Your task to perform on an android device: Search for vegetarian restaurants on Maps Image 0: 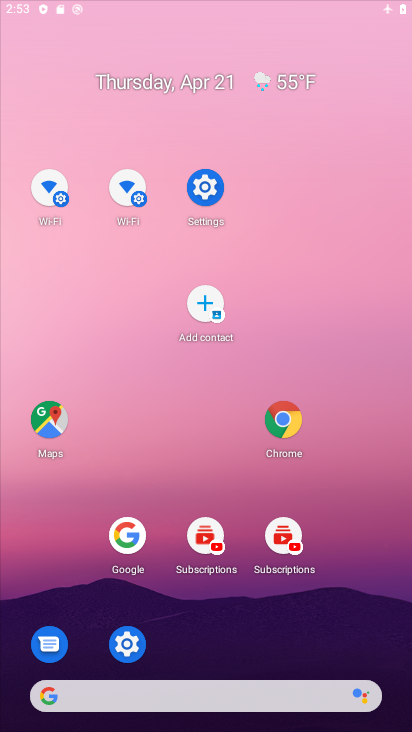
Step 0: drag from (244, 573) to (36, 24)
Your task to perform on an android device: Search for vegetarian restaurants on Maps Image 1: 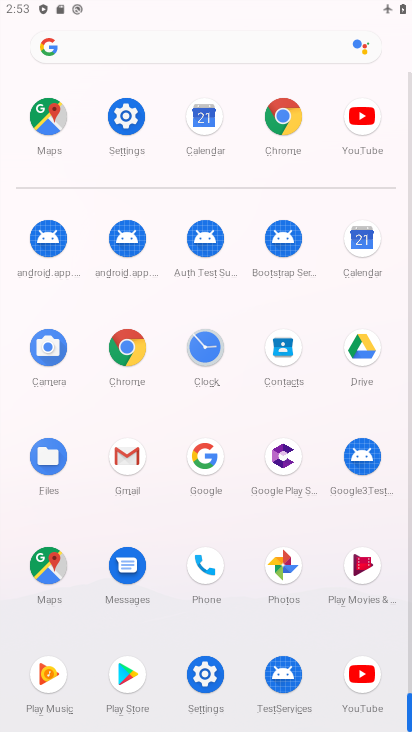
Step 1: click (42, 117)
Your task to perform on an android device: Search for vegetarian restaurants on Maps Image 2: 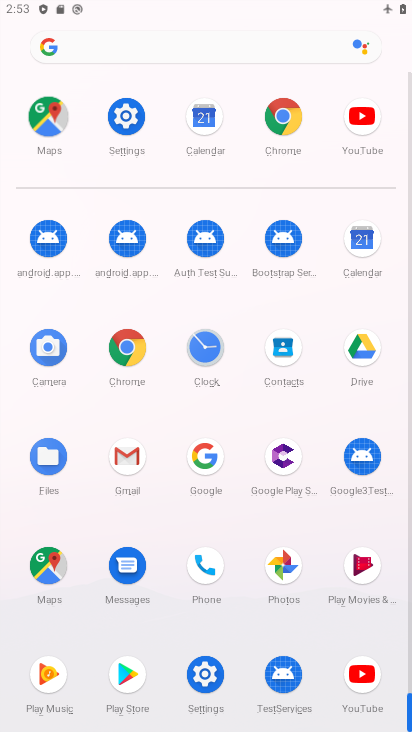
Step 2: click (42, 117)
Your task to perform on an android device: Search for vegetarian restaurants on Maps Image 3: 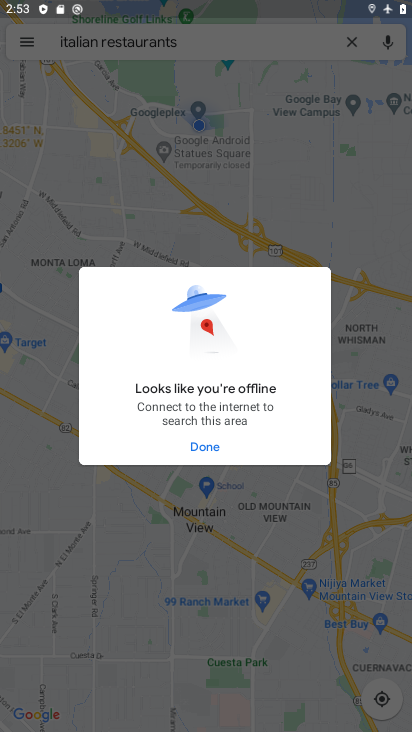
Step 3: task complete